Your task to perform on an android device: Go to Google maps Image 0: 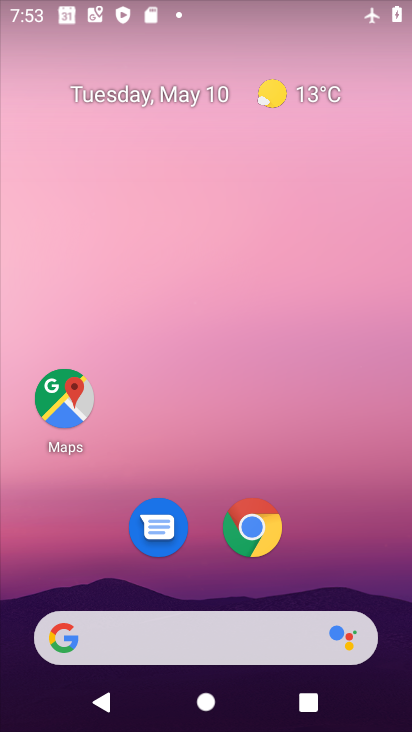
Step 0: click (64, 389)
Your task to perform on an android device: Go to Google maps Image 1: 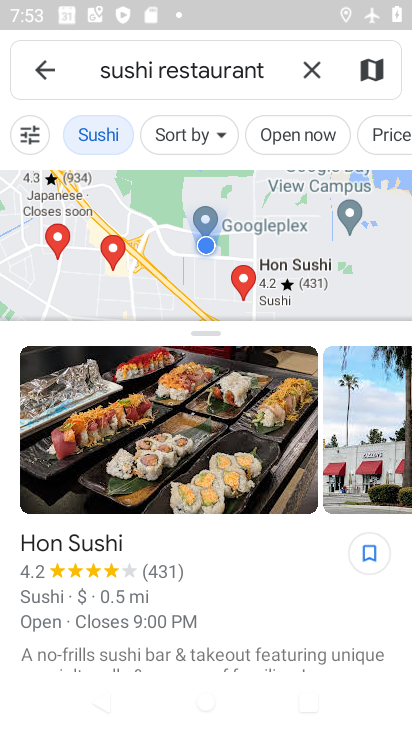
Step 1: press home button
Your task to perform on an android device: Go to Google maps Image 2: 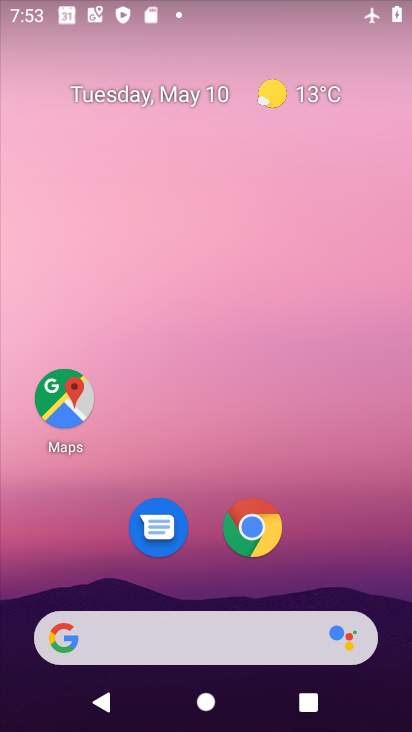
Step 2: drag from (238, 2) to (198, 463)
Your task to perform on an android device: Go to Google maps Image 3: 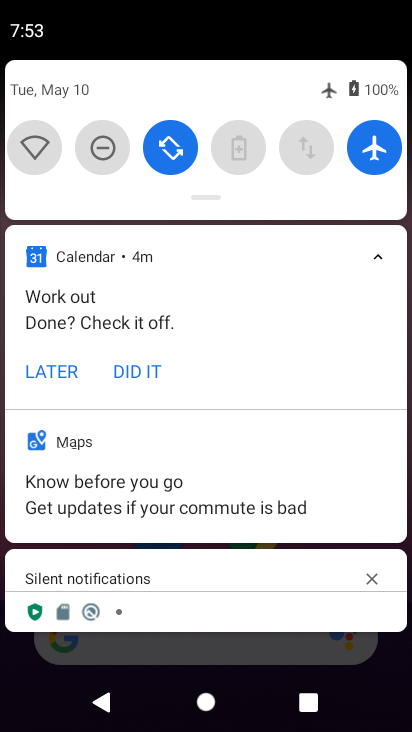
Step 3: click (369, 151)
Your task to perform on an android device: Go to Google maps Image 4: 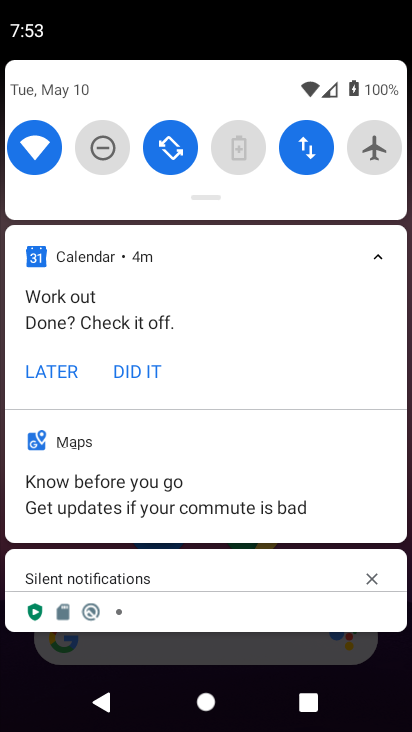
Step 4: press back button
Your task to perform on an android device: Go to Google maps Image 5: 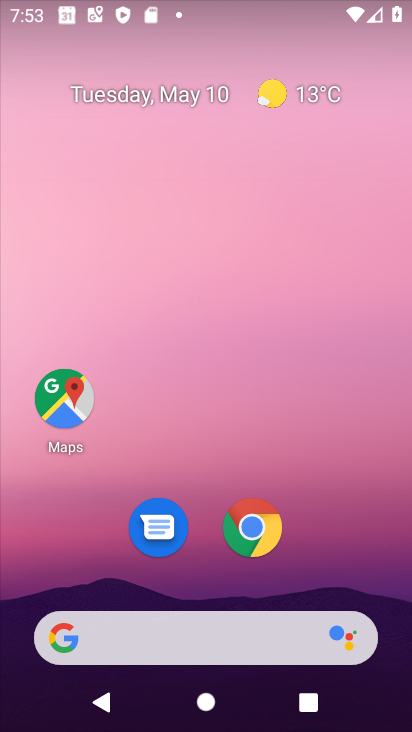
Step 5: click (69, 395)
Your task to perform on an android device: Go to Google maps Image 6: 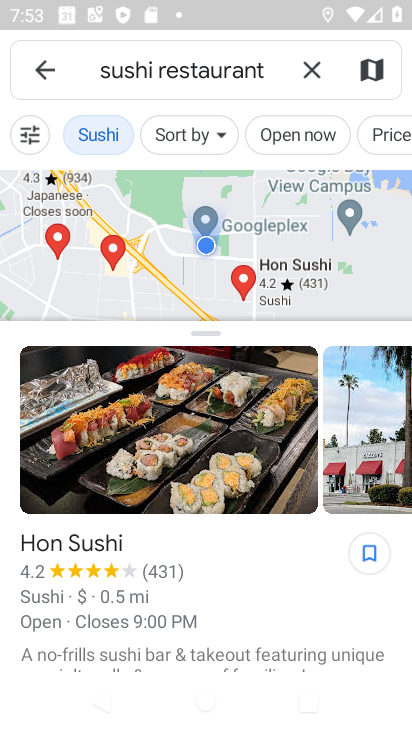
Step 6: click (73, 390)
Your task to perform on an android device: Go to Google maps Image 7: 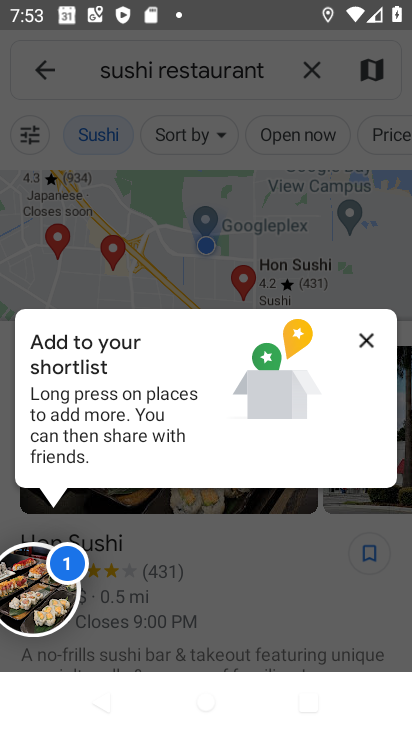
Step 7: click (361, 340)
Your task to perform on an android device: Go to Google maps Image 8: 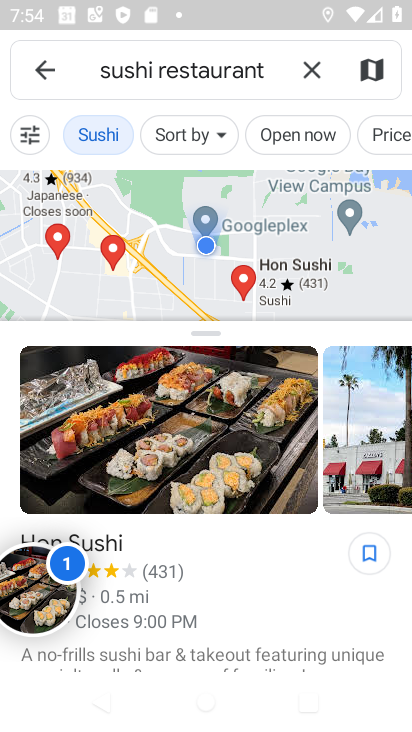
Step 8: click (315, 75)
Your task to perform on an android device: Go to Google maps Image 9: 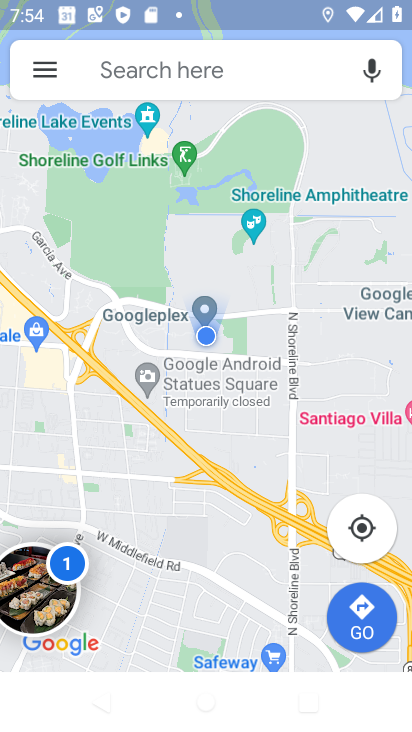
Step 9: task complete